Your task to perform on an android device: delete browsing data in the chrome app Image 0: 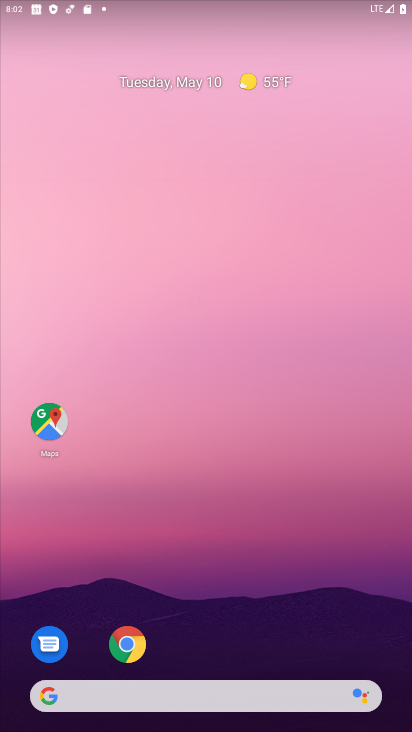
Step 0: click (132, 658)
Your task to perform on an android device: delete browsing data in the chrome app Image 1: 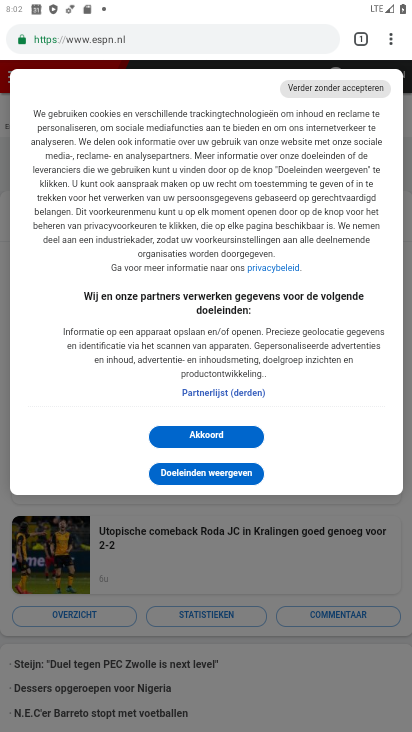
Step 1: click (391, 42)
Your task to perform on an android device: delete browsing data in the chrome app Image 2: 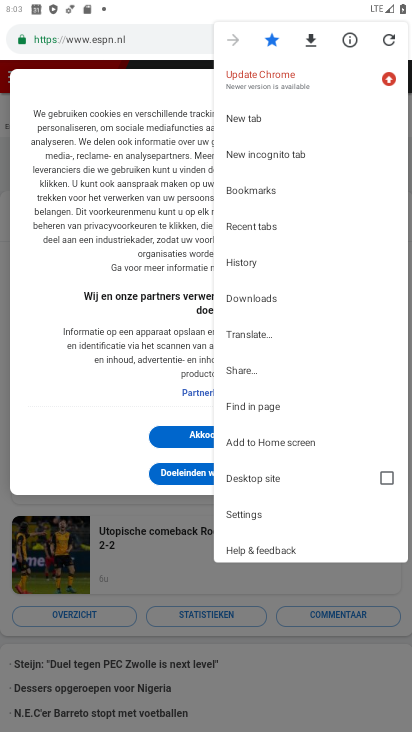
Step 2: click (266, 253)
Your task to perform on an android device: delete browsing data in the chrome app Image 3: 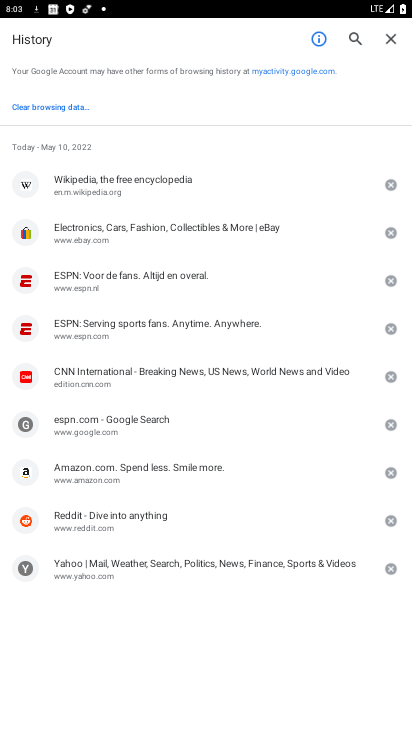
Step 3: click (64, 101)
Your task to perform on an android device: delete browsing data in the chrome app Image 4: 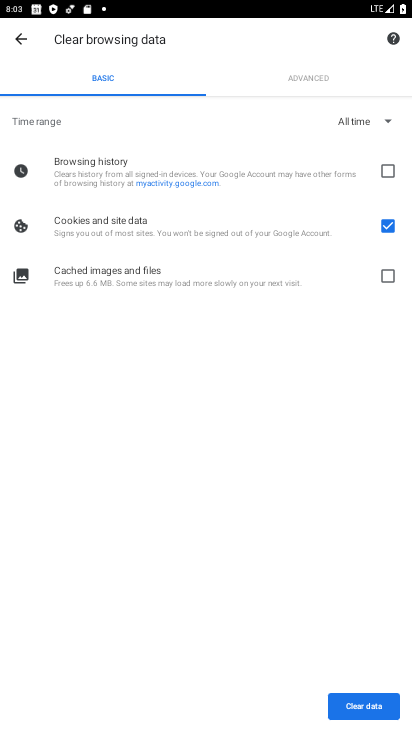
Step 4: click (387, 177)
Your task to perform on an android device: delete browsing data in the chrome app Image 5: 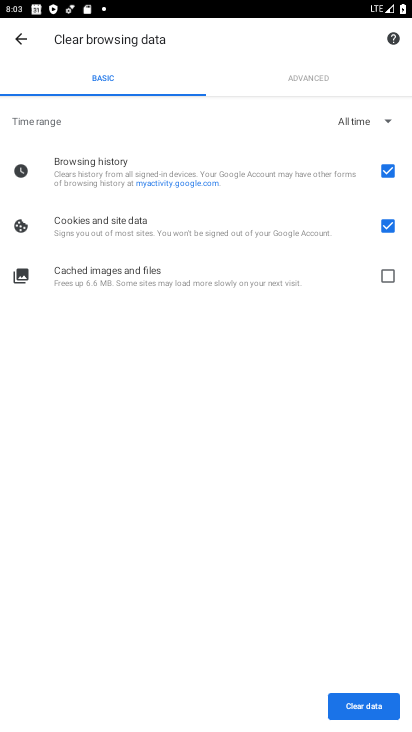
Step 5: click (386, 223)
Your task to perform on an android device: delete browsing data in the chrome app Image 6: 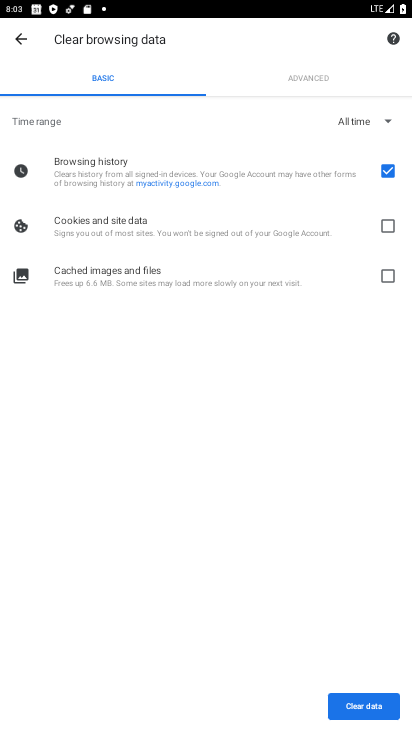
Step 6: click (360, 710)
Your task to perform on an android device: delete browsing data in the chrome app Image 7: 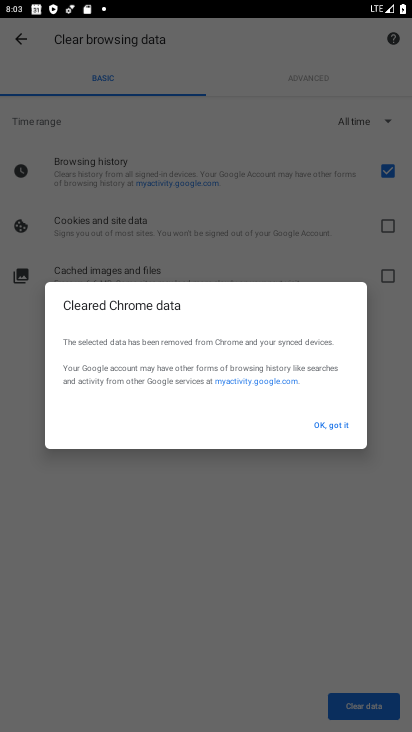
Step 7: click (335, 428)
Your task to perform on an android device: delete browsing data in the chrome app Image 8: 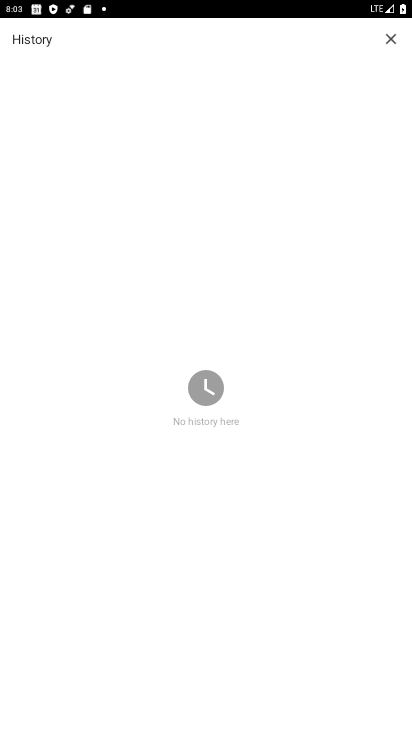
Step 8: task complete